Your task to perform on an android device: Open display settings Image 0: 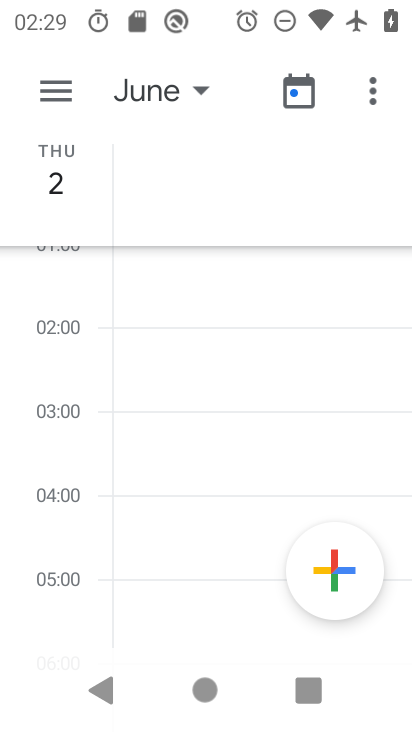
Step 0: press home button
Your task to perform on an android device: Open display settings Image 1: 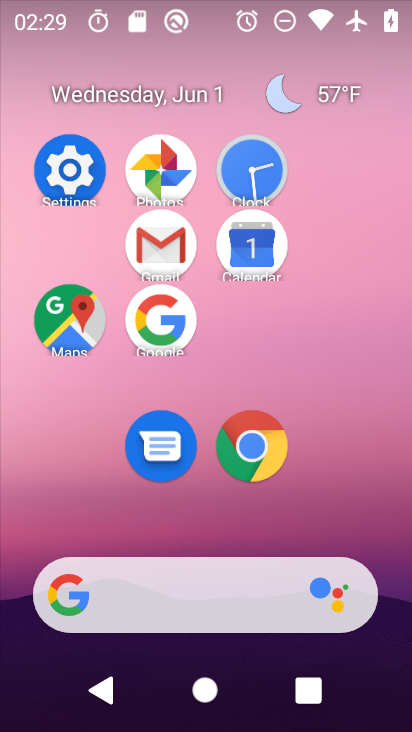
Step 1: click (84, 175)
Your task to perform on an android device: Open display settings Image 2: 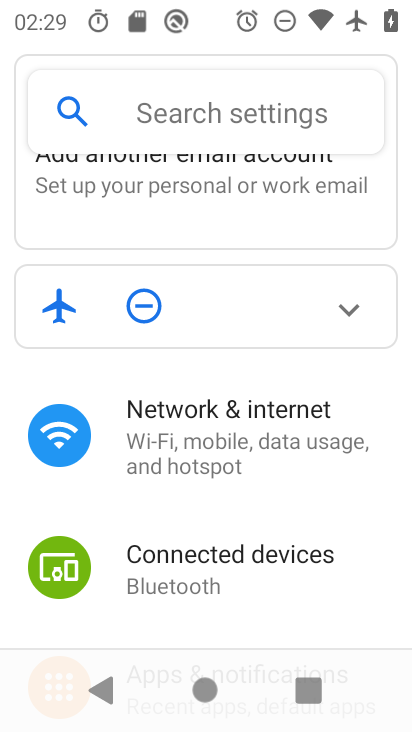
Step 2: drag from (274, 551) to (259, 114)
Your task to perform on an android device: Open display settings Image 3: 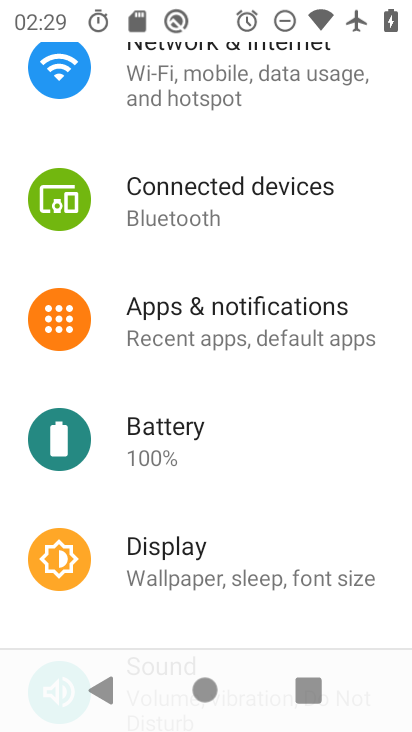
Step 3: click (211, 550)
Your task to perform on an android device: Open display settings Image 4: 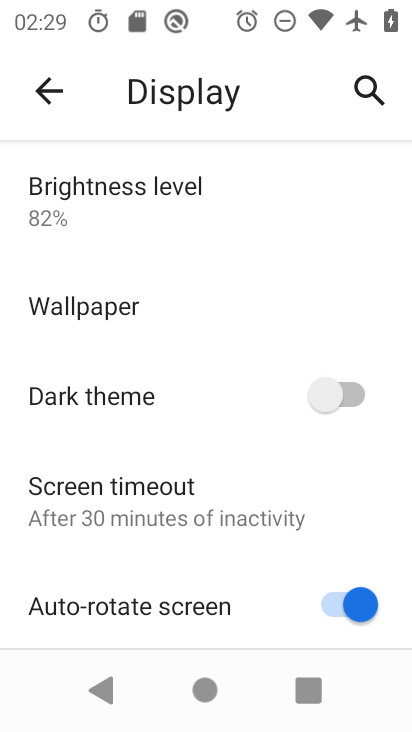
Step 4: task complete